Your task to perform on an android device: Open notification settings Image 0: 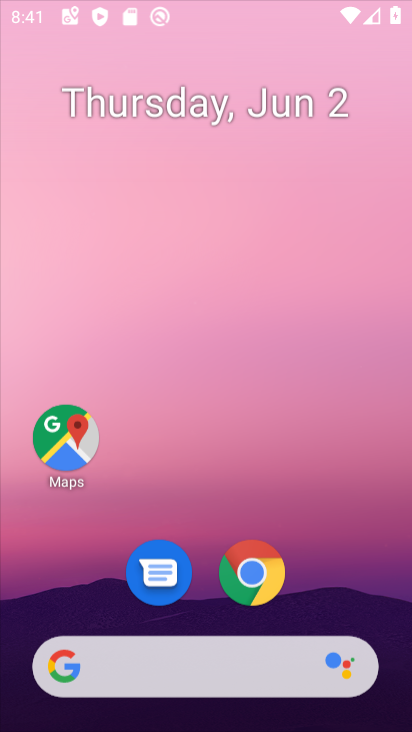
Step 0: press home button
Your task to perform on an android device: Open notification settings Image 1: 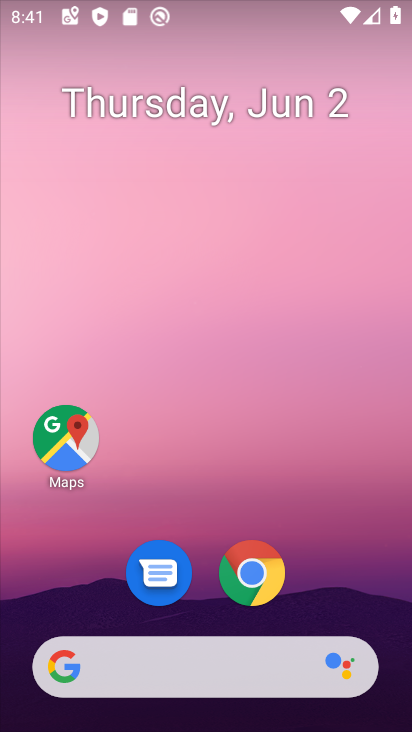
Step 1: drag from (337, 595) to (349, 5)
Your task to perform on an android device: Open notification settings Image 2: 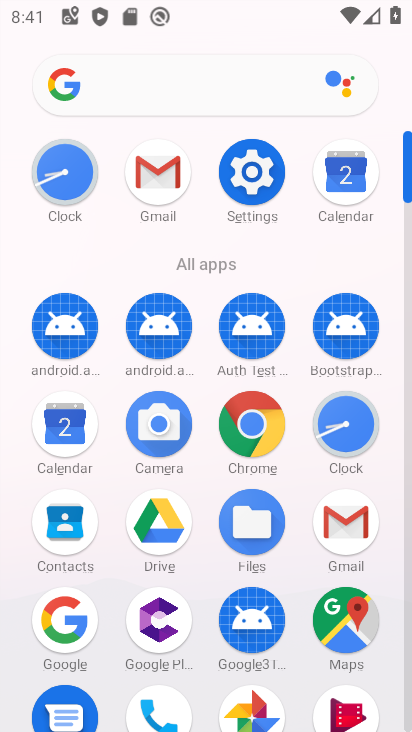
Step 2: click (252, 204)
Your task to perform on an android device: Open notification settings Image 3: 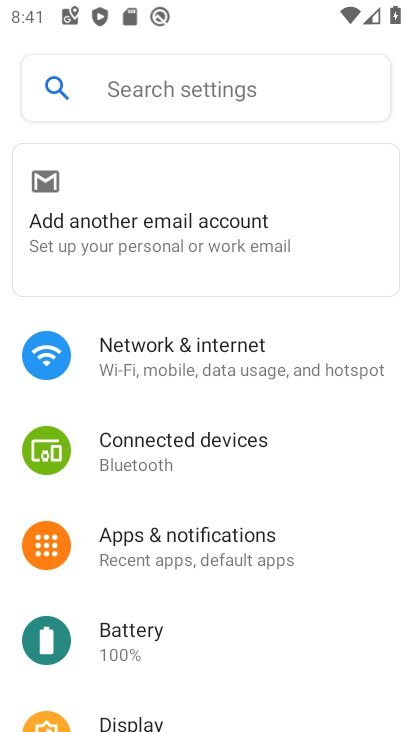
Step 3: click (95, 544)
Your task to perform on an android device: Open notification settings Image 4: 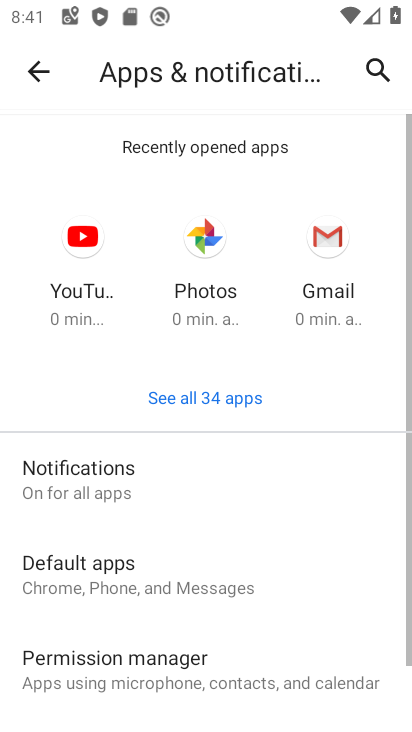
Step 4: click (147, 482)
Your task to perform on an android device: Open notification settings Image 5: 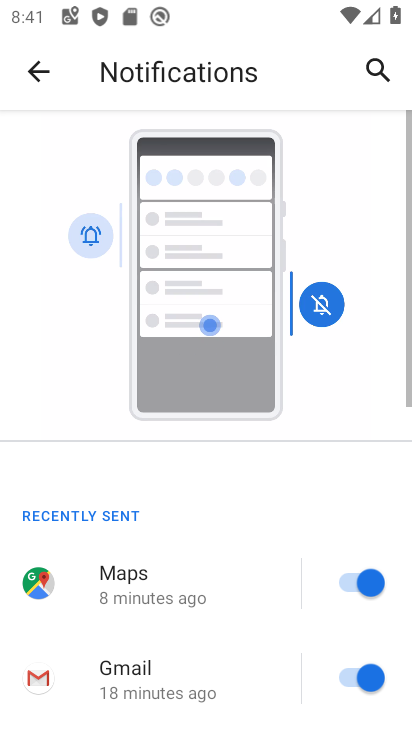
Step 5: task complete